Your task to perform on an android device: Go to Amazon Image 0: 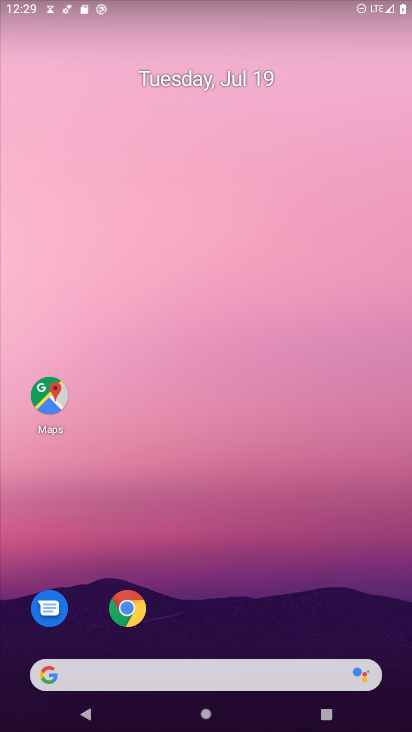
Step 0: drag from (287, 668) to (239, 201)
Your task to perform on an android device: Go to Amazon Image 1: 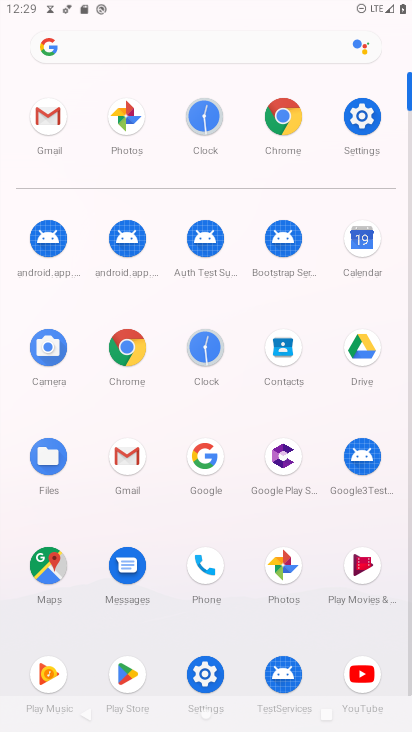
Step 1: click (128, 359)
Your task to perform on an android device: Go to Amazon Image 2: 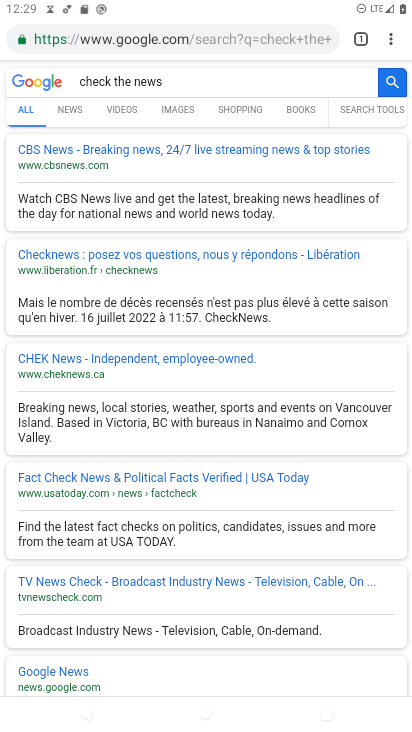
Step 2: click (281, 82)
Your task to perform on an android device: Go to Amazon Image 3: 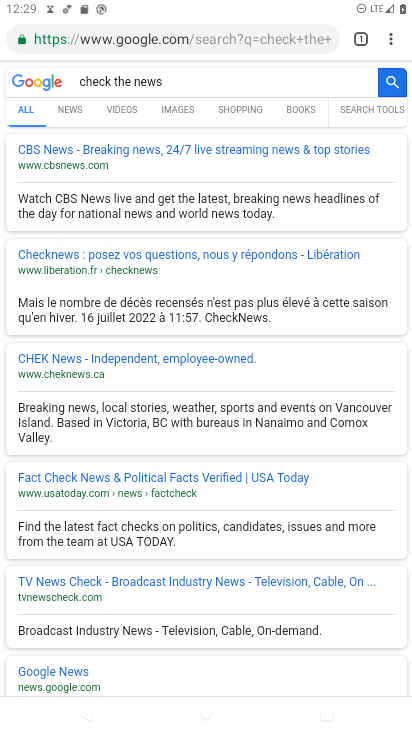
Step 3: click (281, 82)
Your task to perform on an android device: Go to Amazon Image 4: 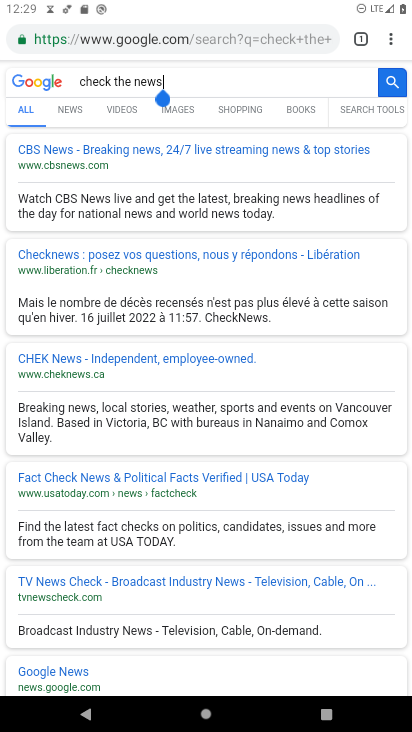
Step 4: click (281, 82)
Your task to perform on an android device: Go to Amazon Image 5: 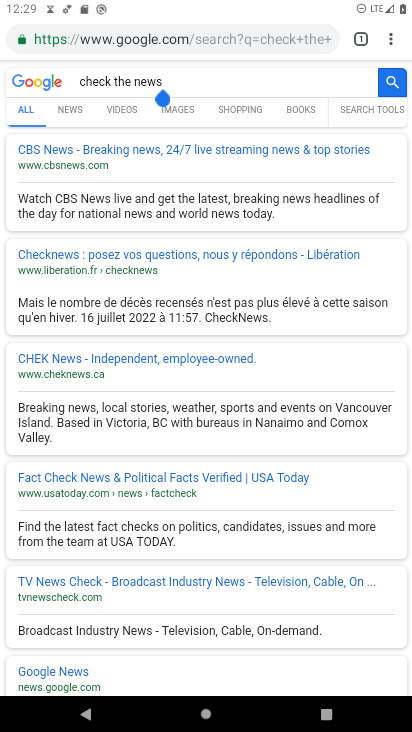
Step 5: click (281, 82)
Your task to perform on an android device: Go to Amazon Image 6: 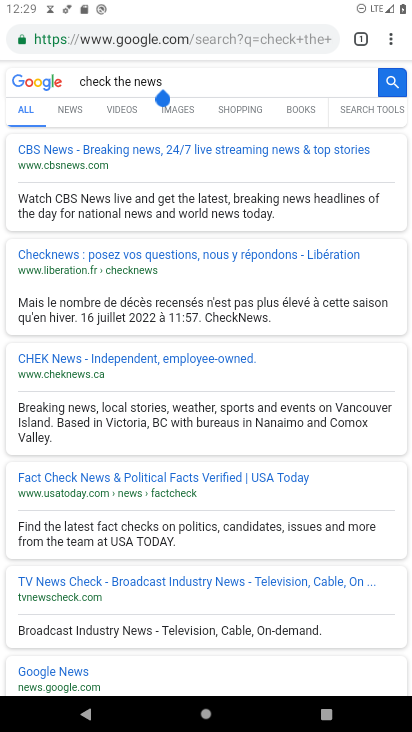
Step 6: click (269, 42)
Your task to perform on an android device: Go to Amazon Image 7: 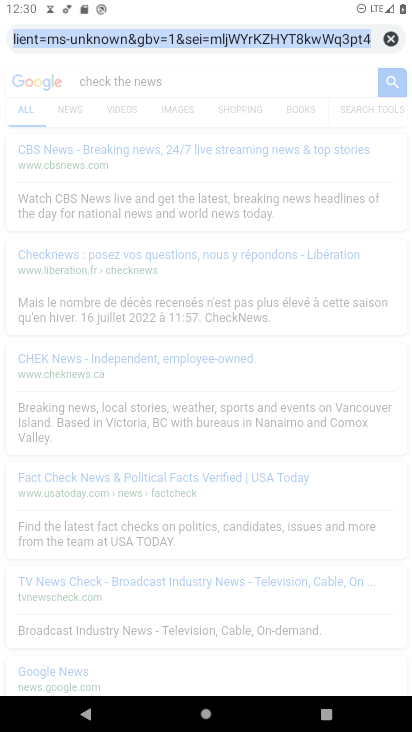
Step 7: type "amazon"
Your task to perform on an android device: Go to Amazon Image 8: 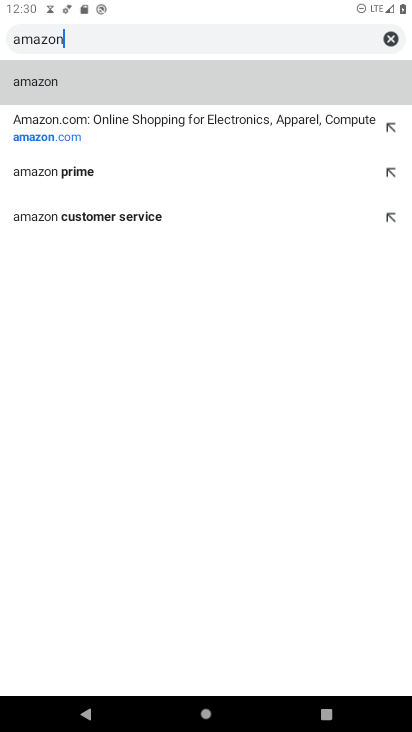
Step 8: click (67, 127)
Your task to perform on an android device: Go to Amazon Image 9: 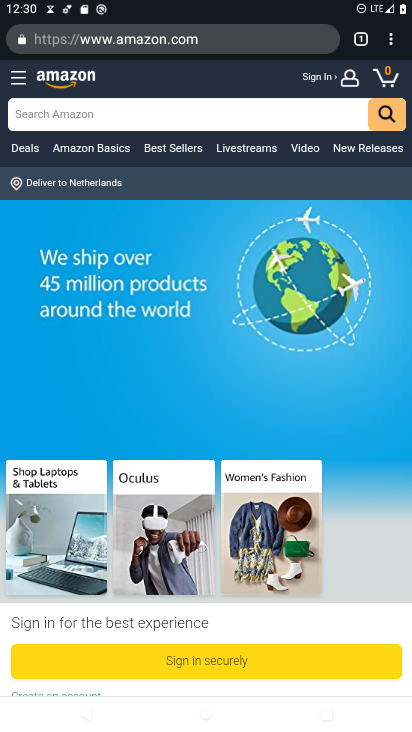
Step 9: task complete